Your task to perform on an android device: What's on my calendar tomorrow? Image 0: 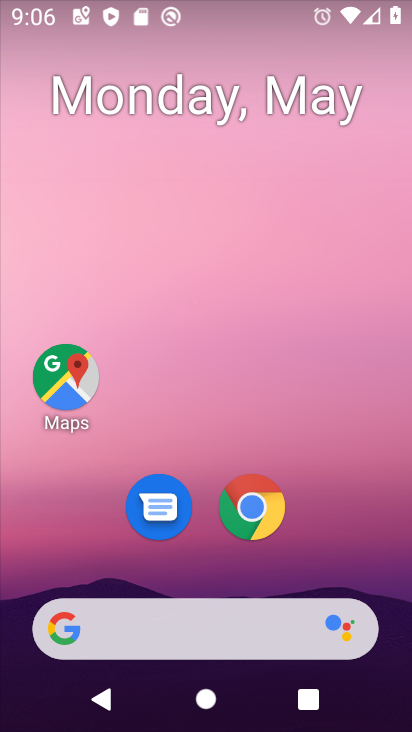
Step 0: drag from (209, 555) to (284, 25)
Your task to perform on an android device: What's on my calendar tomorrow? Image 1: 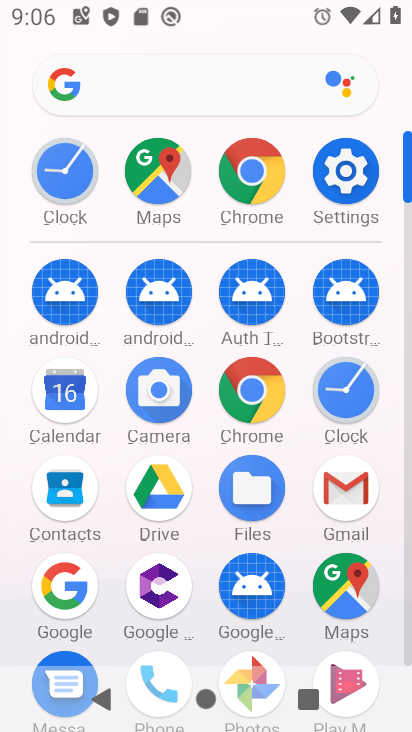
Step 1: click (74, 400)
Your task to perform on an android device: What's on my calendar tomorrow? Image 2: 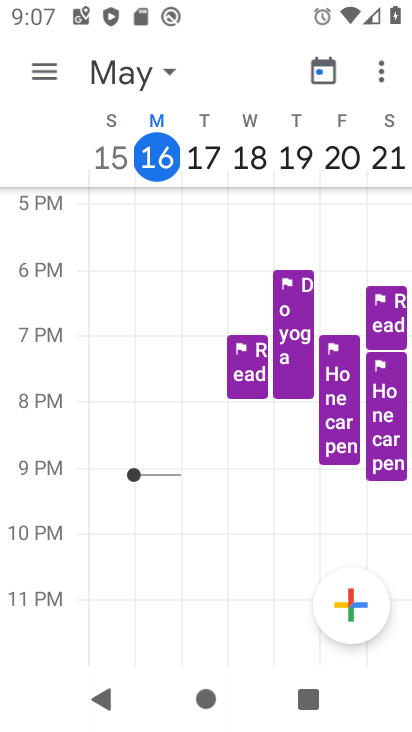
Step 2: click (41, 70)
Your task to perform on an android device: What's on my calendar tomorrow? Image 3: 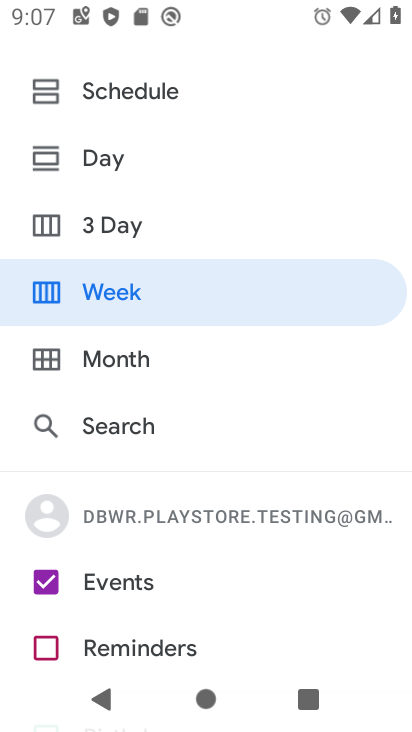
Step 3: click (129, 226)
Your task to perform on an android device: What's on my calendar tomorrow? Image 4: 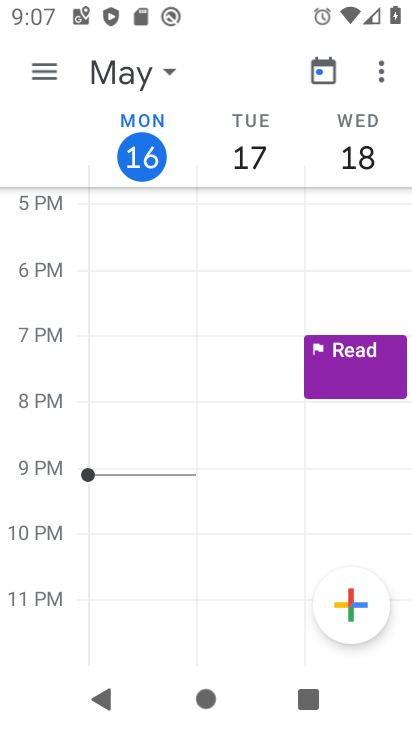
Step 4: task complete